Your task to perform on an android device: turn off javascript in the chrome app Image 0: 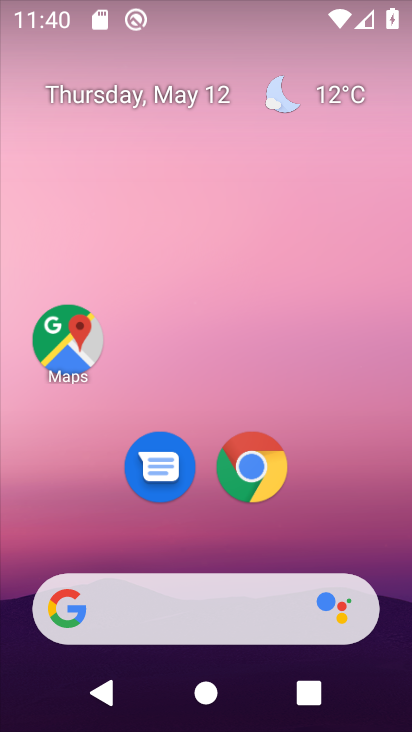
Step 0: click (261, 447)
Your task to perform on an android device: turn off javascript in the chrome app Image 1: 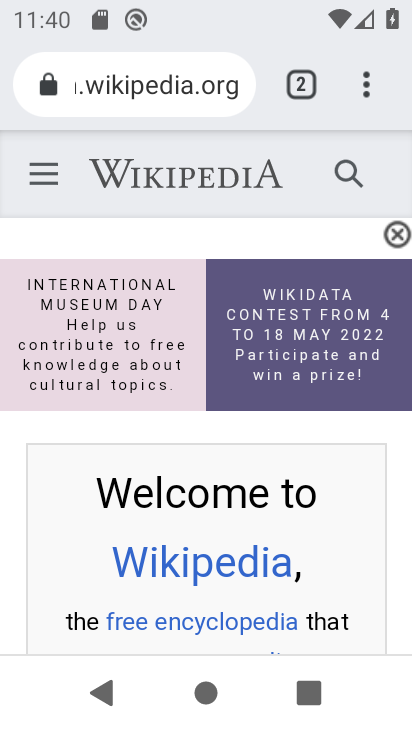
Step 1: click (360, 78)
Your task to perform on an android device: turn off javascript in the chrome app Image 2: 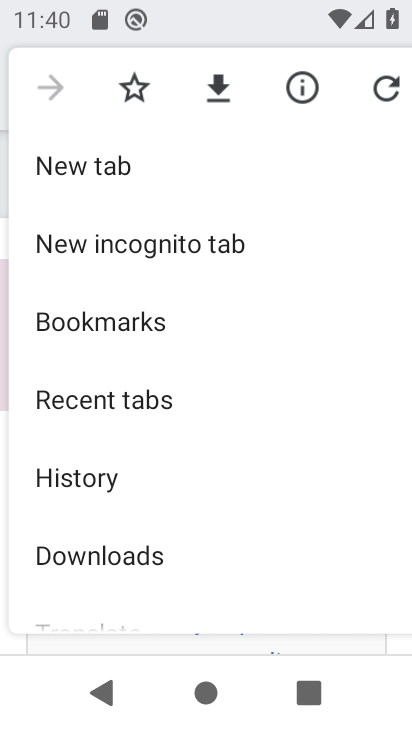
Step 2: drag from (205, 528) to (181, 139)
Your task to perform on an android device: turn off javascript in the chrome app Image 3: 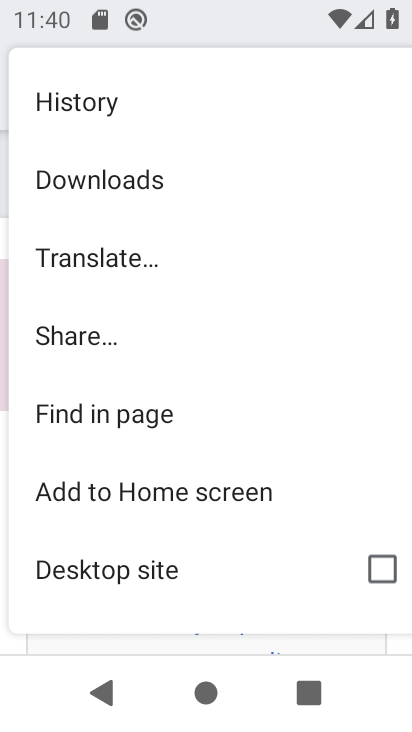
Step 3: drag from (212, 496) to (238, 240)
Your task to perform on an android device: turn off javascript in the chrome app Image 4: 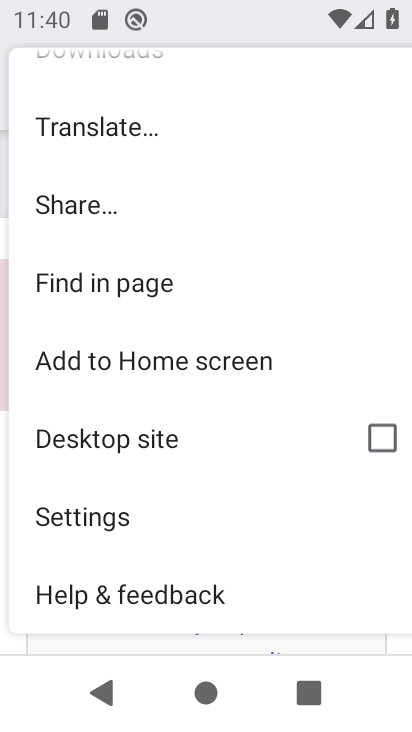
Step 4: click (144, 518)
Your task to perform on an android device: turn off javascript in the chrome app Image 5: 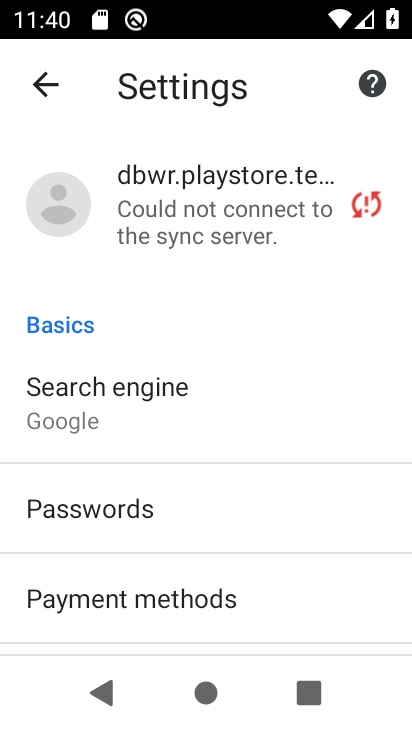
Step 5: drag from (174, 559) to (185, 173)
Your task to perform on an android device: turn off javascript in the chrome app Image 6: 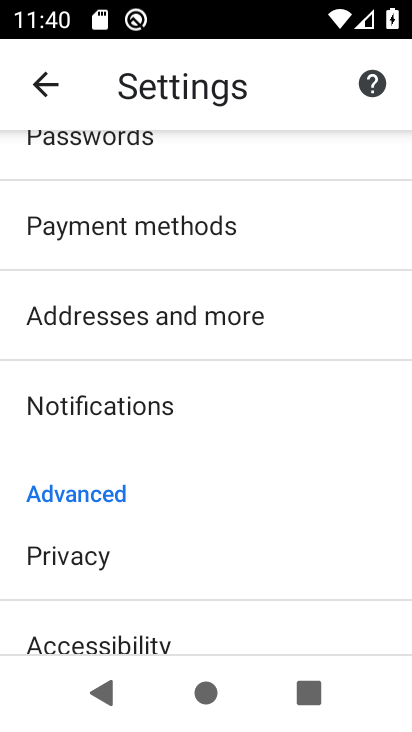
Step 6: drag from (184, 586) to (175, 223)
Your task to perform on an android device: turn off javascript in the chrome app Image 7: 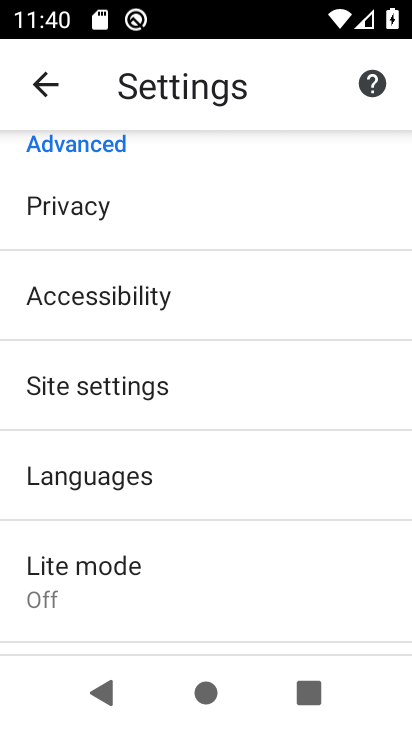
Step 7: click (121, 404)
Your task to perform on an android device: turn off javascript in the chrome app Image 8: 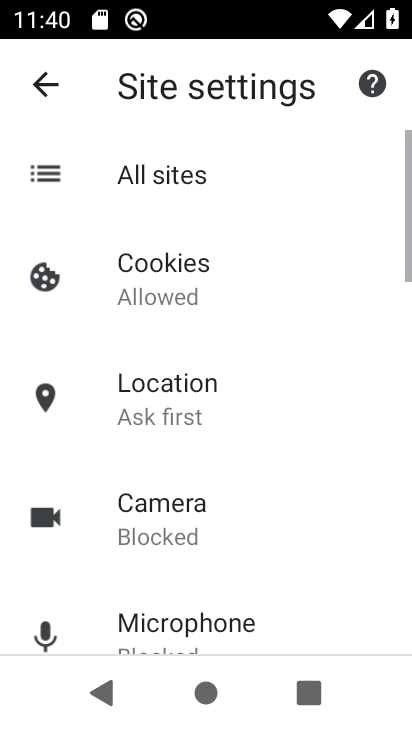
Step 8: drag from (256, 608) to (219, 222)
Your task to perform on an android device: turn off javascript in the chrome app Image 9: 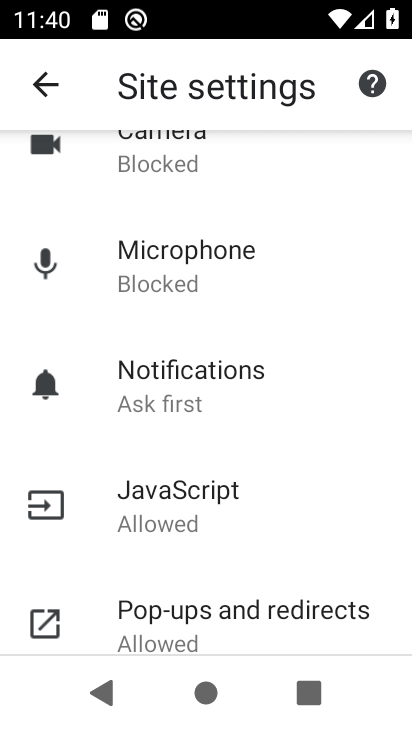
Step 9: click (205, 492)
Your task to perform on an android device: turn off javascript in the chrome app Image 10: 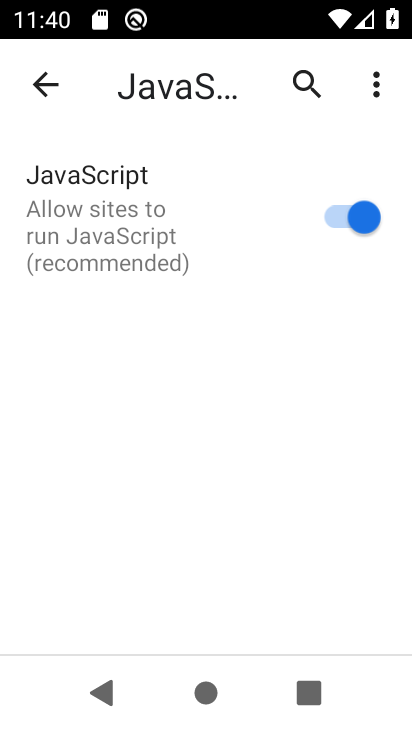
Step 10: click (363, 210)
Your task to perform on an android device: turn off javascript in the chrome app Image 11: 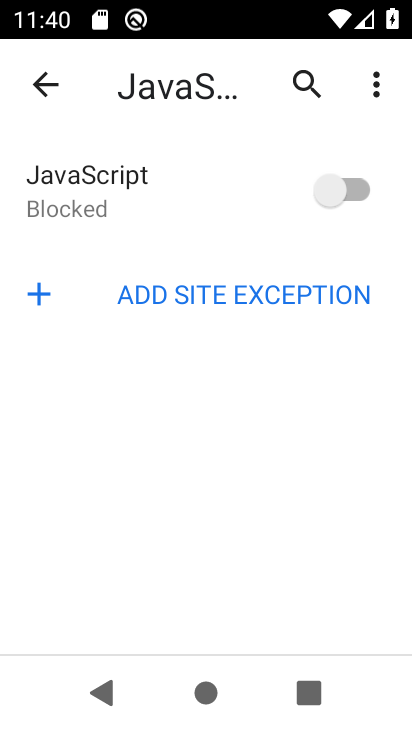
Step 11: task complete